Your task to perform on an android device: toggle airplane mode Image 0: 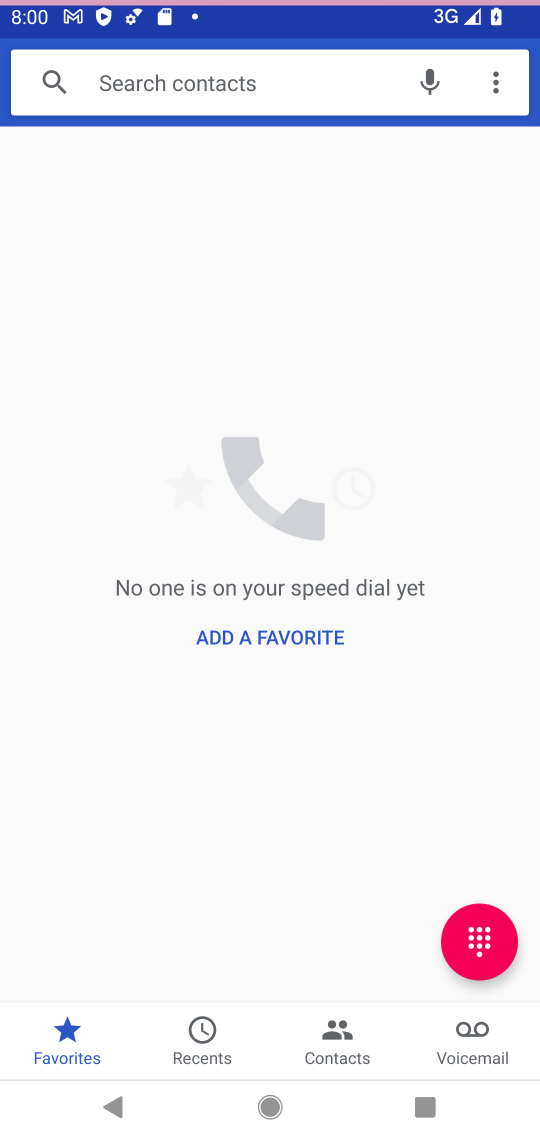
Step 0: press home button
Your task to perform on an android device: toggle airplane mode Image 1: 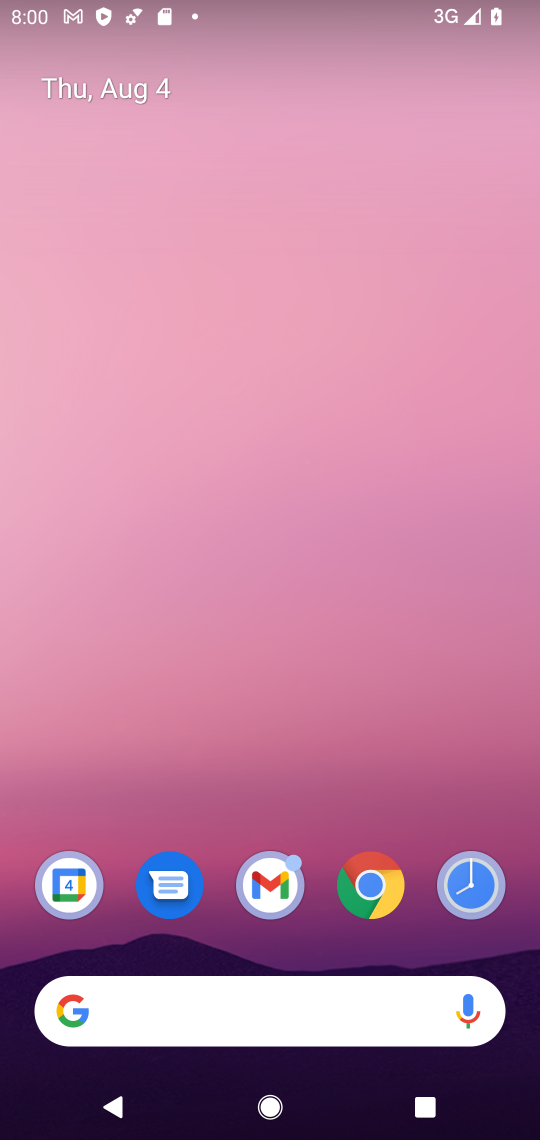
Step 1: press home button
Your task to perform on an android device: toggle airplane mode Image 2: 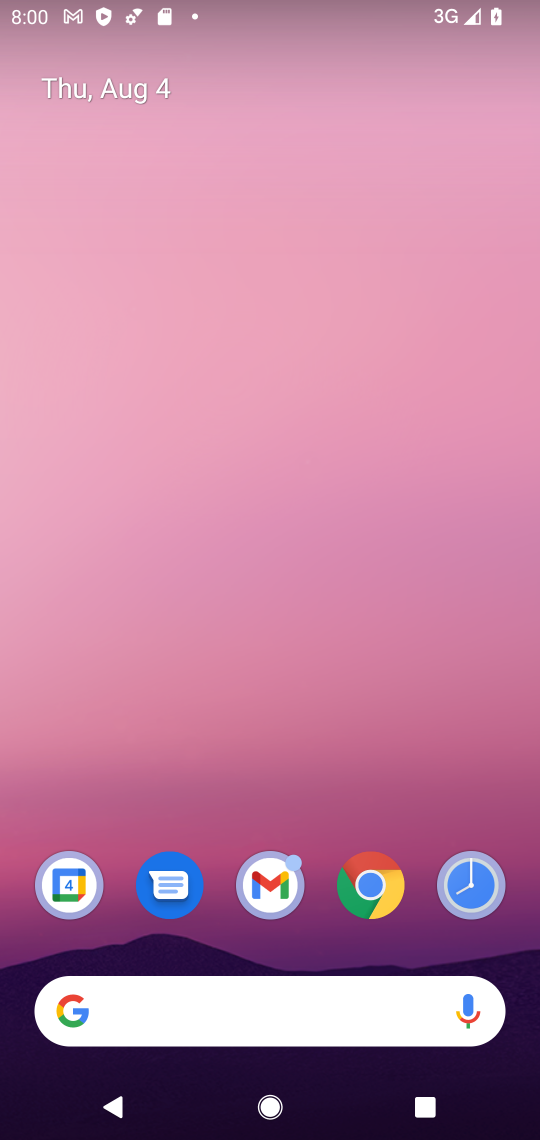
Step 2: press home button
Your task to perform on an android device: toggle airplane mode Image 3: 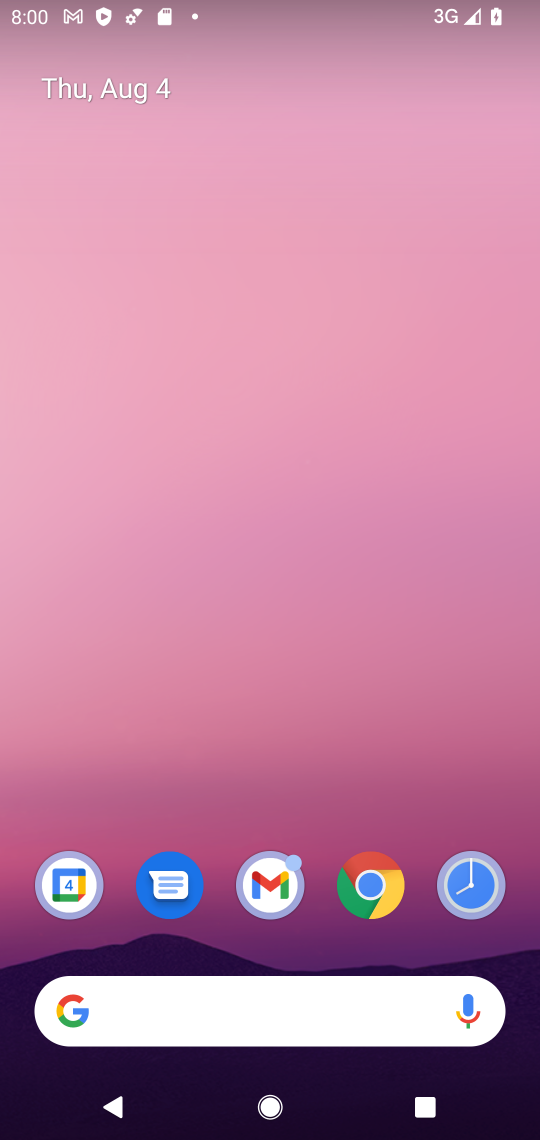
Step 3: drag from (474, 15) to (383, 703)
Your task to perform on an android device: toggle airplane mode Image 4: 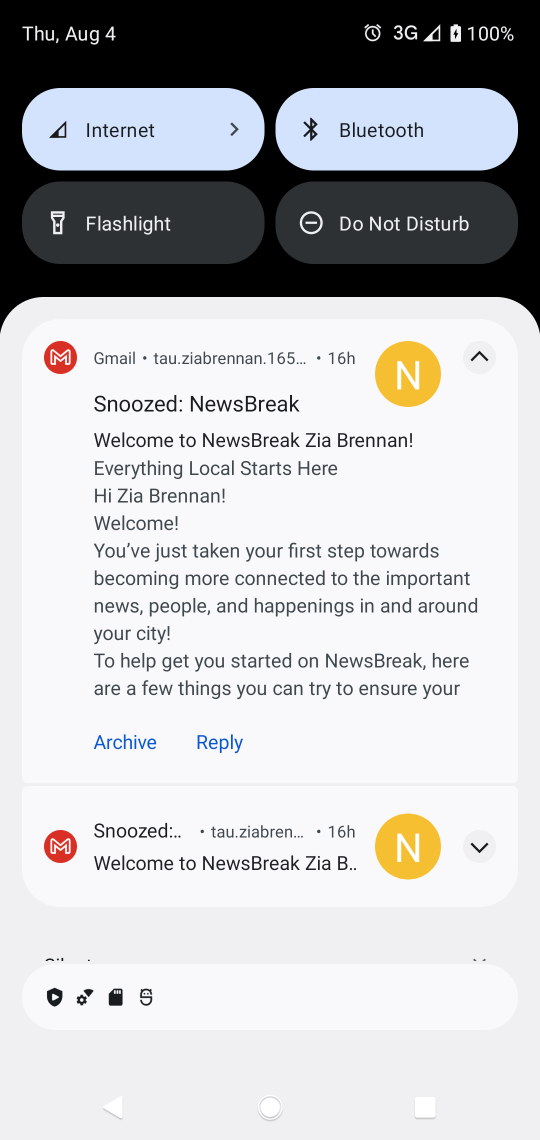
Step 4: drag from (259, 165) to (210, 916)
Your task to perform on an android device: toggle airplane mode Image 5: 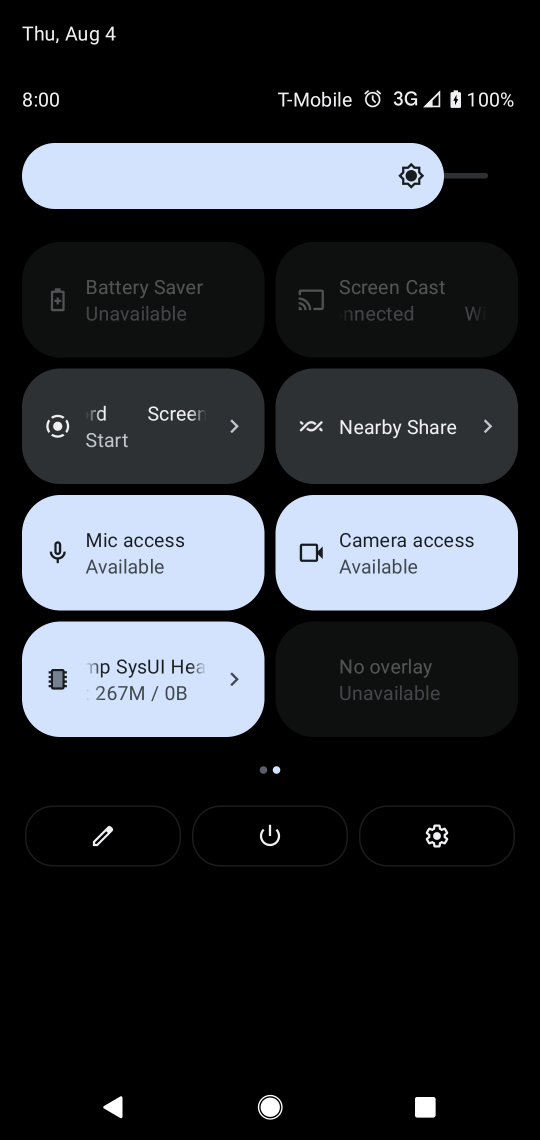
Step 5: drag from (16, 674) to (375, 749)
Your task to perform on an android device: toggle airplane mode Image 6: 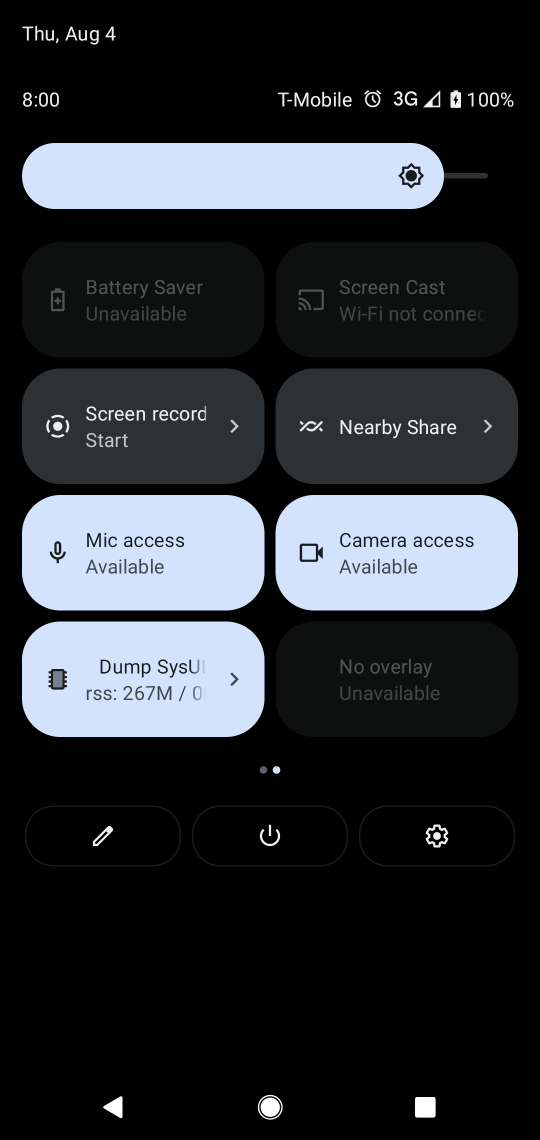
Step 6: drag from (7, 534) to (402, 784)
Your task to perform on an android device: toggle airplane mode Image 7: 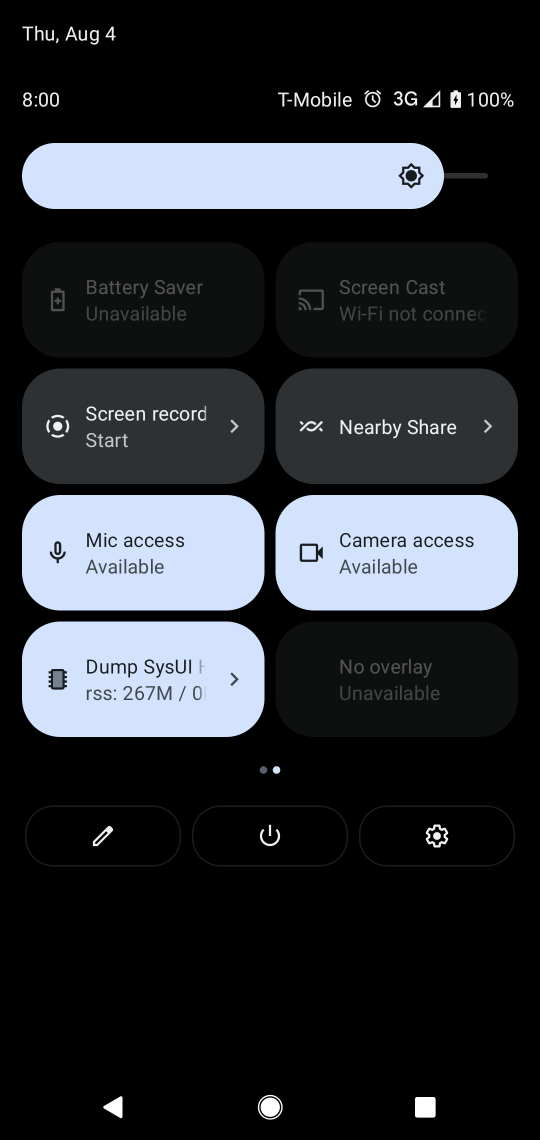
Step 7: drag from (15, 471) to (519, 882)
Your task to perform on an android device: toggle airplane mode Image 8: 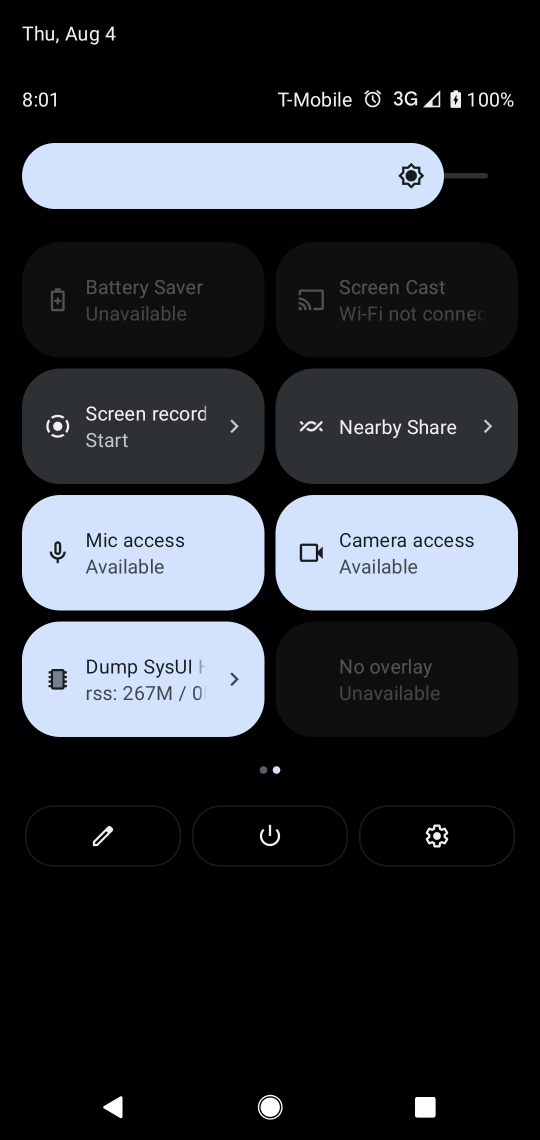
Step 8: drag from (94, 775) to (488, 848)
Your task to perform on an android device: toggle airplane mode Image 9: 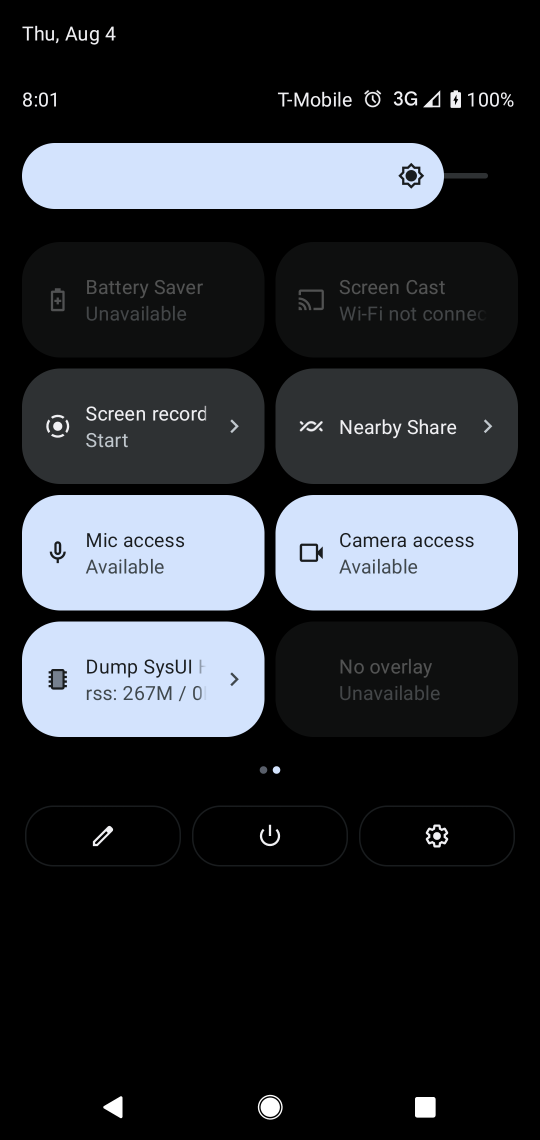
Step 9: click (539, 749)
Your task to perform on an android device: toggle airplane mode Image 10: 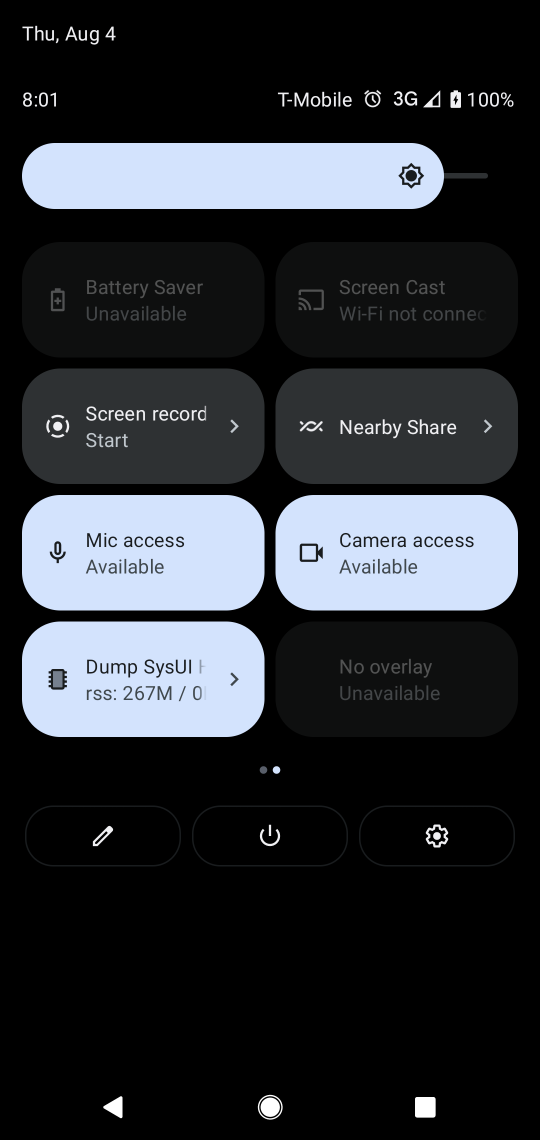
Step 10: drag from (12, 628) to (529, 551)
Your task to perform on an android device: toggle airplane mode Image 11: 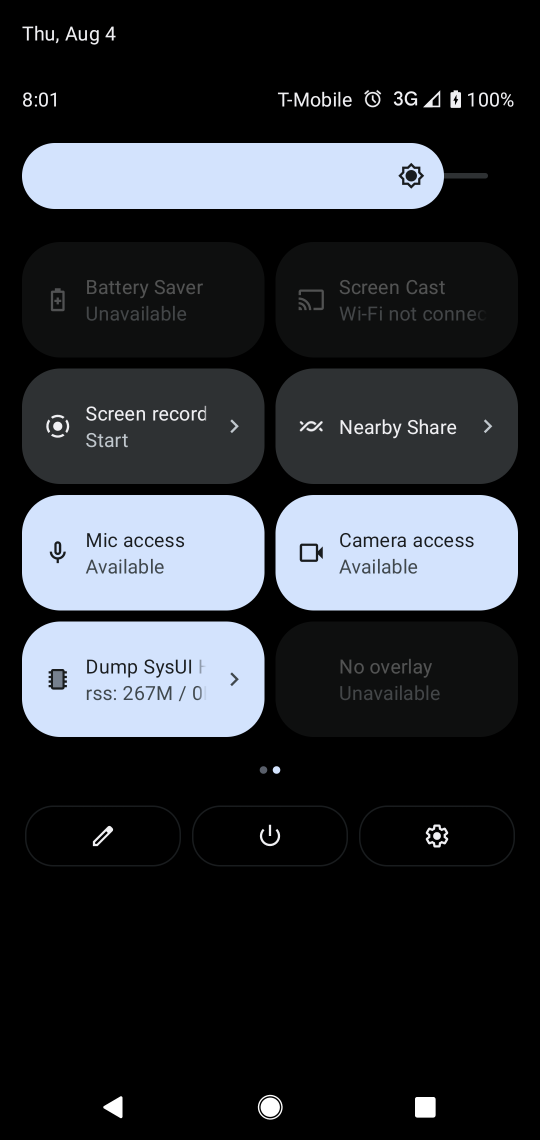
Step 11: drag from (33, 507) to (415, 621)
Your task to perform on an android device: toggle airplane mode Image 12: 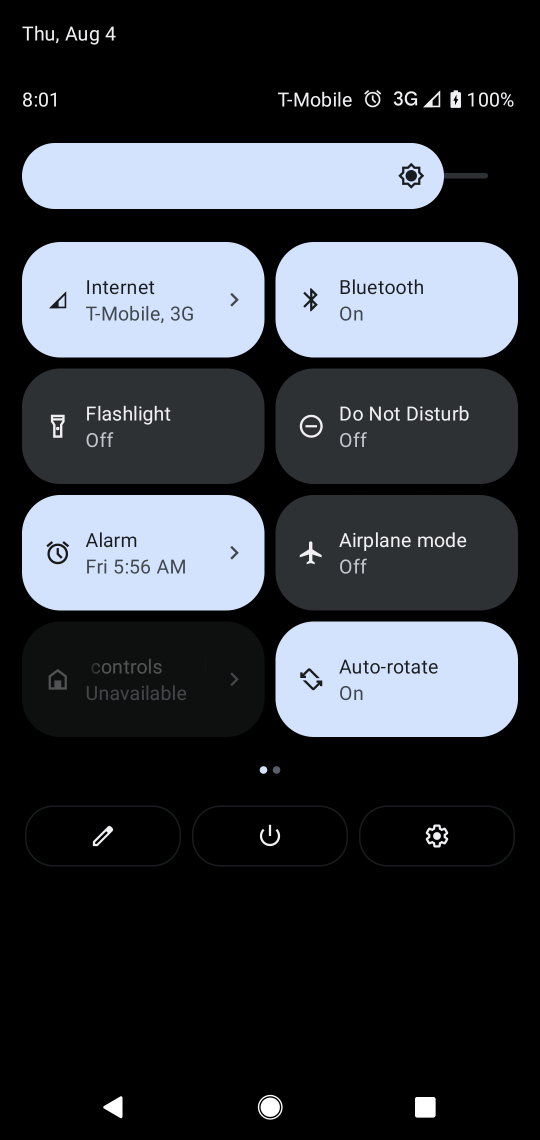
Step 12: click (346, 581)
Your task to perform on an android device: toggle airplane mode Image 13: 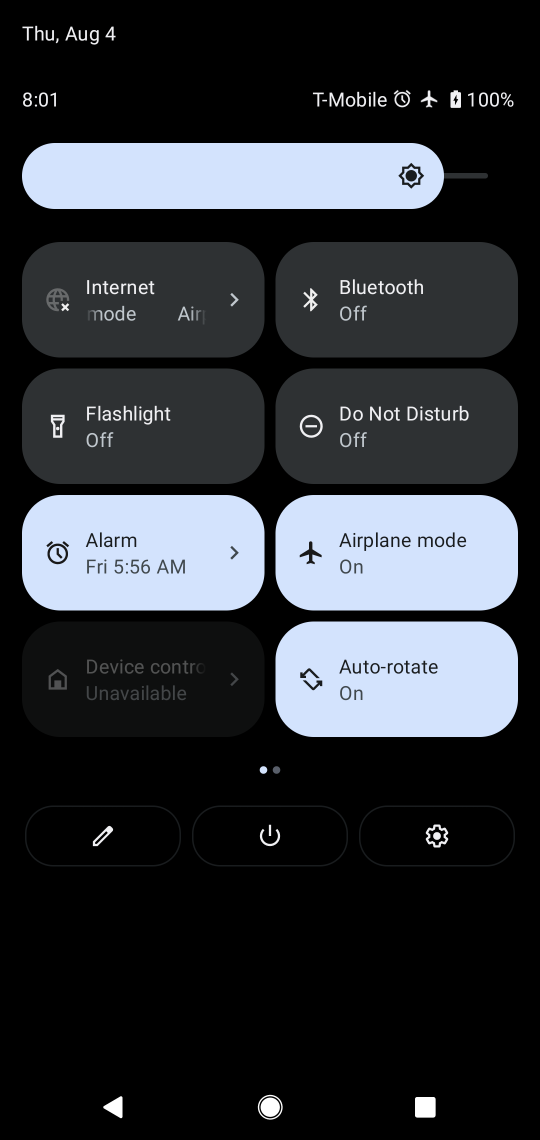
Step 13: task complete